Your task to perform on an android device: Open Google Image 0: 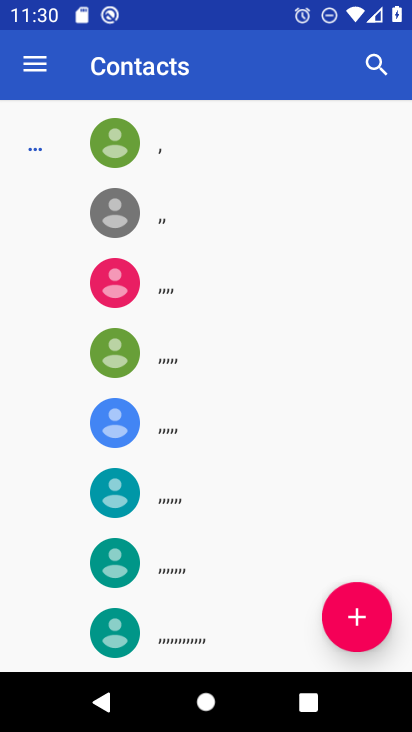
Step 0: press home button
Your task to perform on an android device: Open Google Image 1: 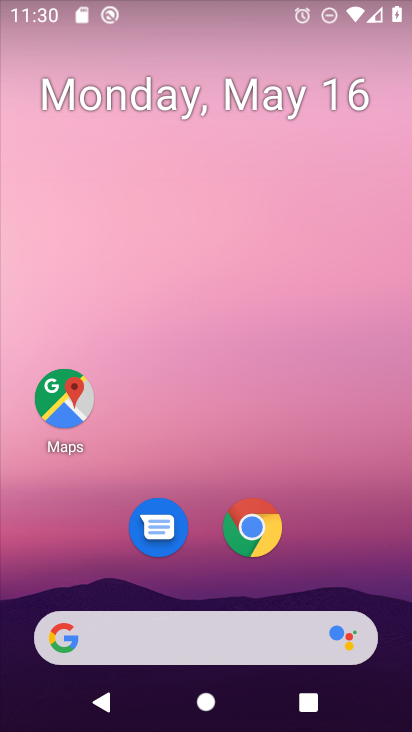
Step 1: drag from (340, 565) to (358, 20)
Your task to perform on an android device: Open Google Image 2: 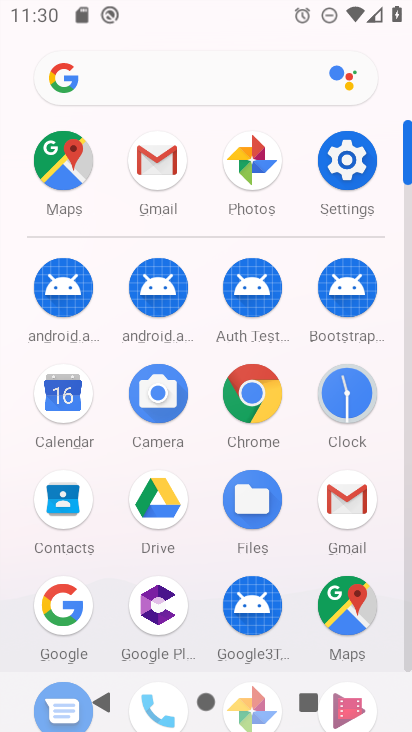
Step 2: click (67, 623)
Your task to perform on an android device: Open Google Image 3: 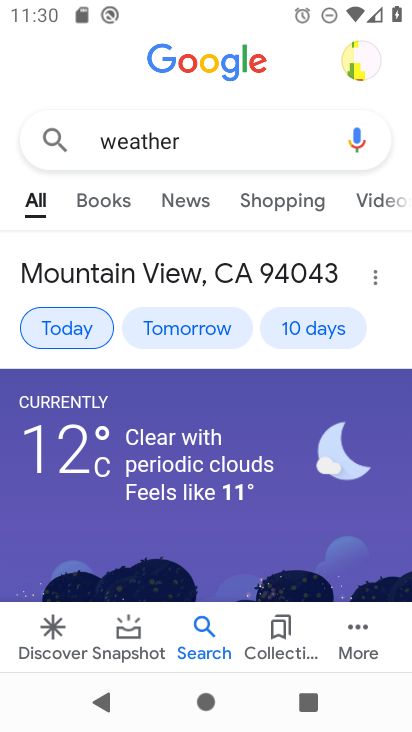
Step 3: task complete